Your task to perform on an android device: Go to network settings Image 0: 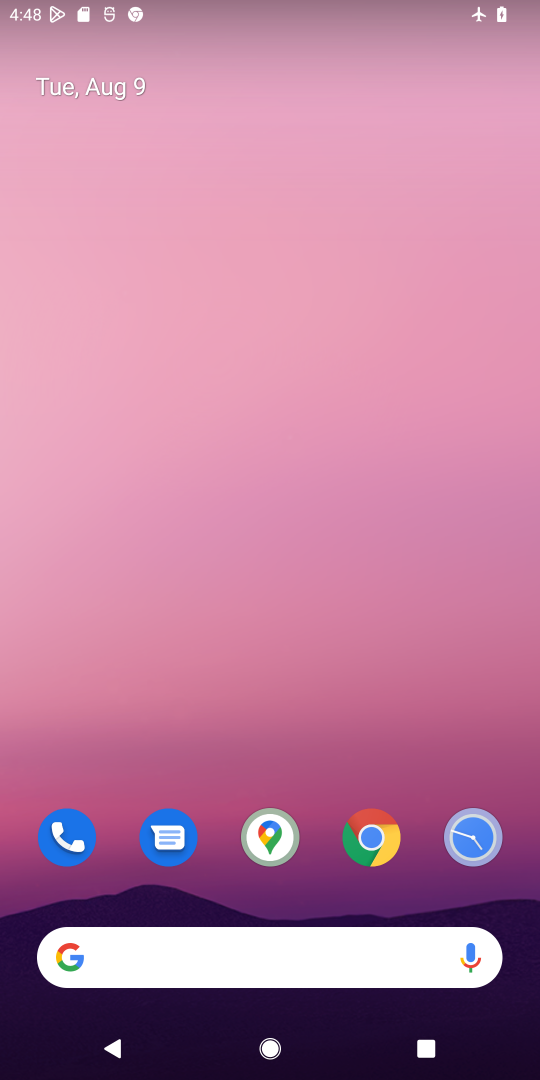
Step 0: drag from (355, 716) to (355, 197)
Your task to perform on an android device: Go to network settings Image 1: 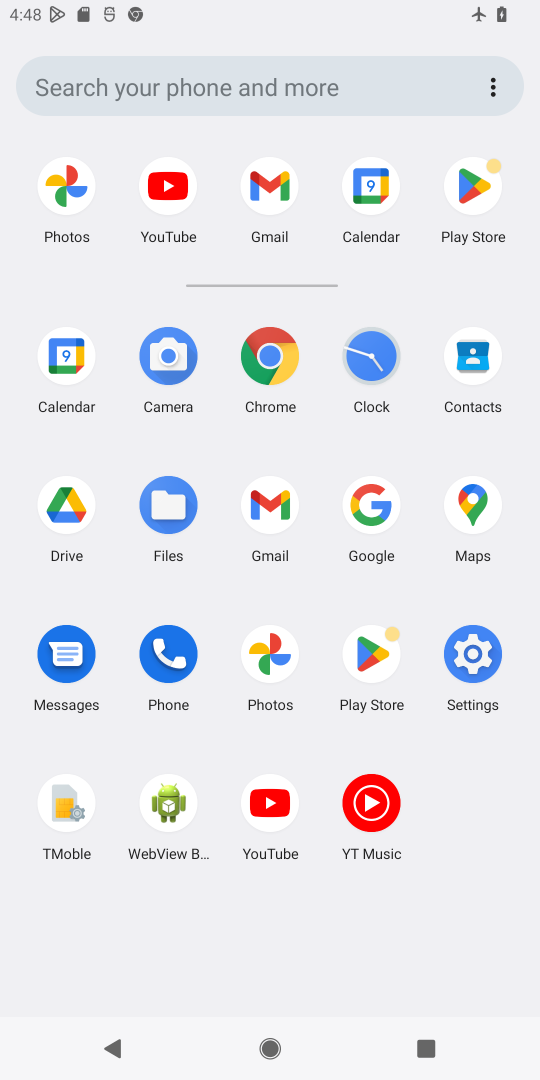
Step 1: click (471, 654)
Your task to perform on an android device: Go to network settings Image 2: 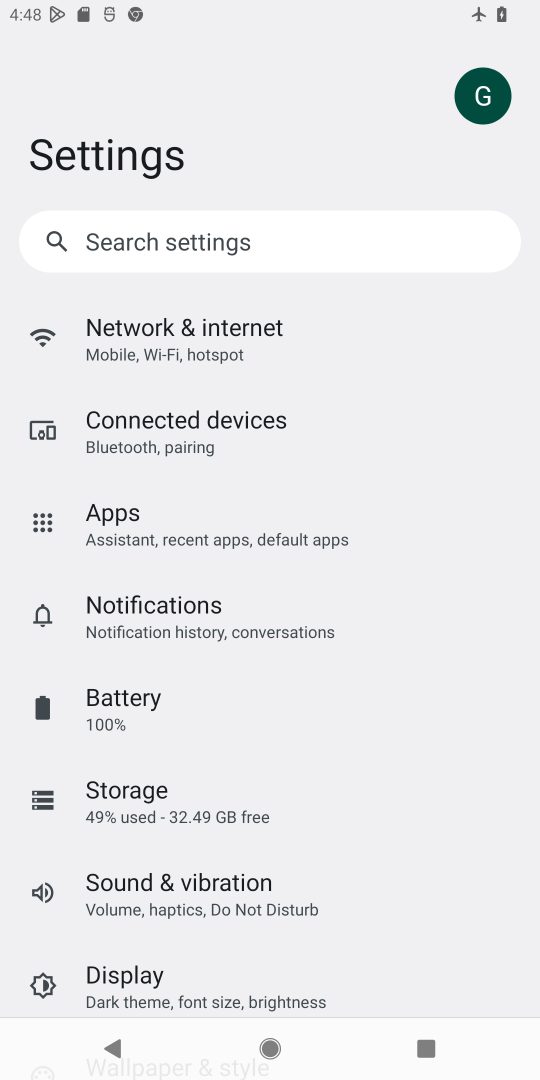
Step 2: click (178, 333)
Your task to perform on an android device: Go to network settings Image 3: 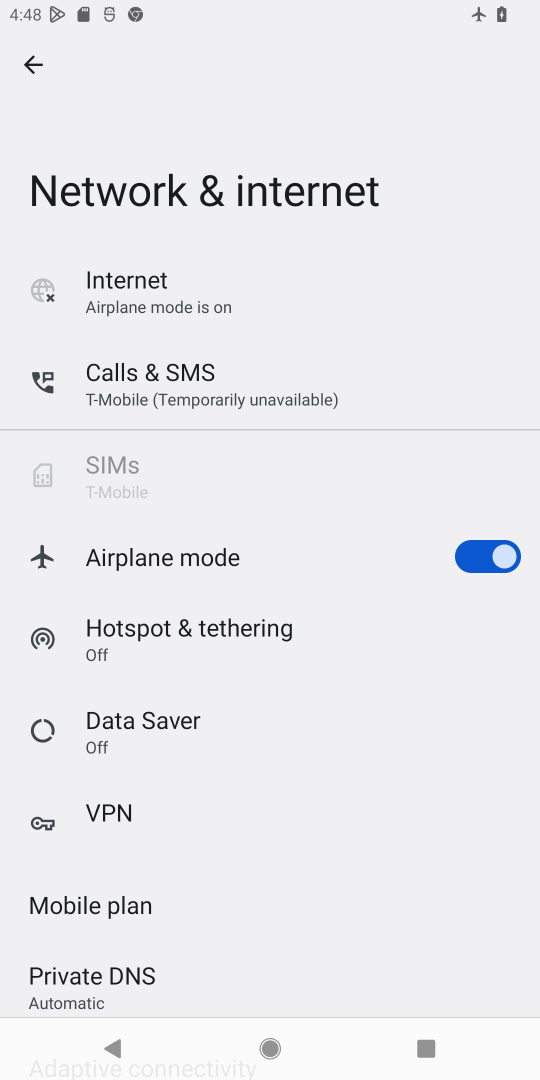
Step 3: task complete